Your task to perform on an android device: set the stopwatch Image 0: 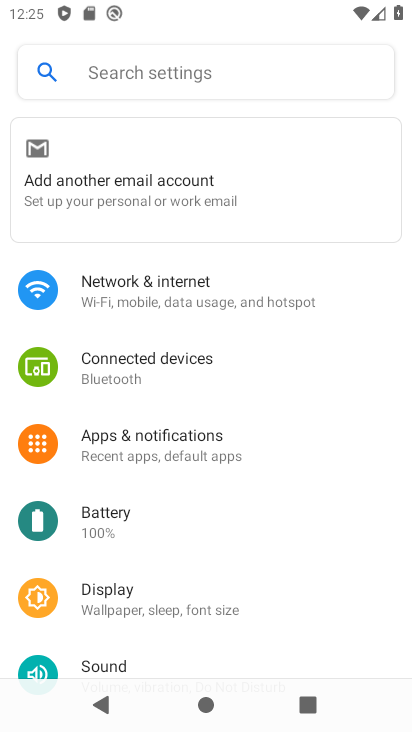
Step 0: press home button
Your task to perform on an android device: set the stopwatch Image 1: 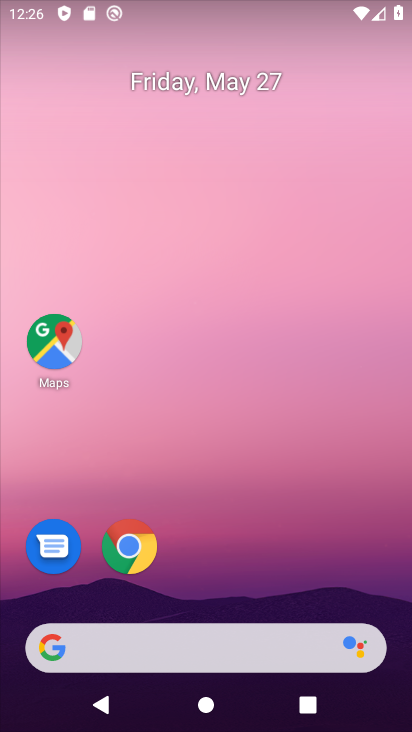
Step 1: drag from (204, 529) to (276, 228)
Your task to perform on an android device: set the stopwatch Image 2: 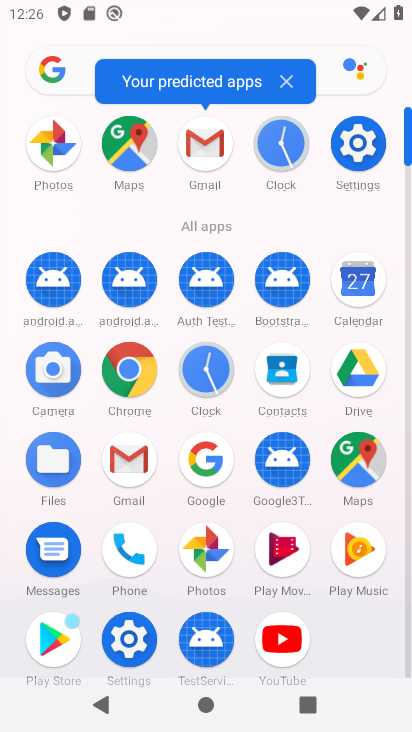
Step 2: click (243, 367)
Your task to perform on an android device: set the stopwatch Image 3: 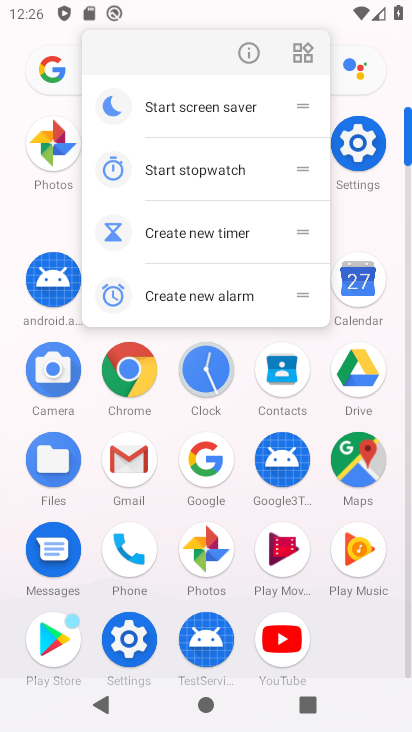
Step 3: click (227, 367)
Your task to perform on an android device: set the stopwatch Image 4: 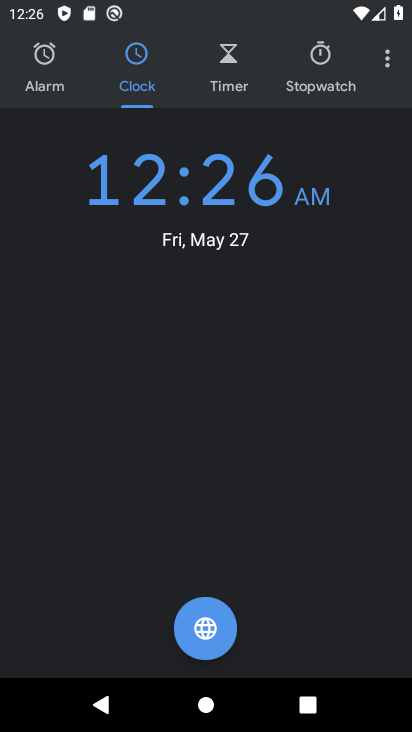
Step 4: click (323, 70)
Your task to perform on an android device: set the stopwatch Image 5: 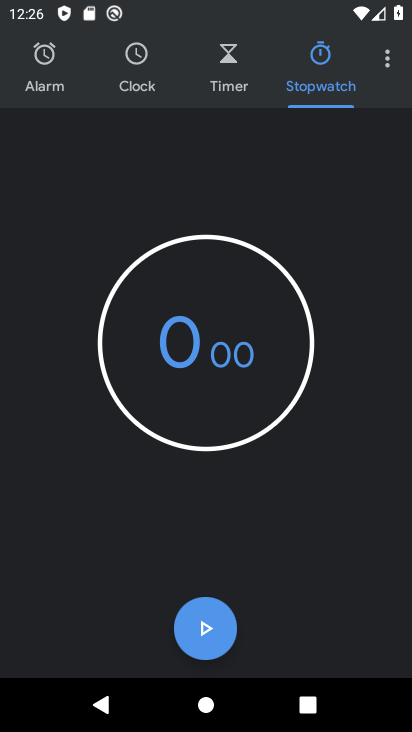
Step 5: click (200, 633)
Your task to perform on an android device: set the stopwatch Image 6: 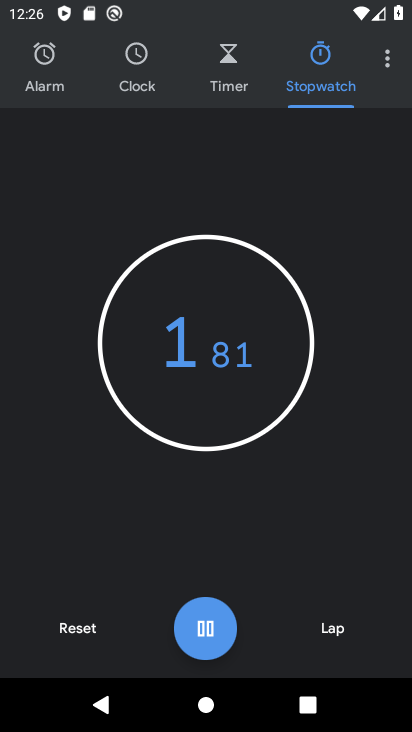
Step 6: task complete